Your task to perform on an android device: turn off translation in the chrome app Image 0: 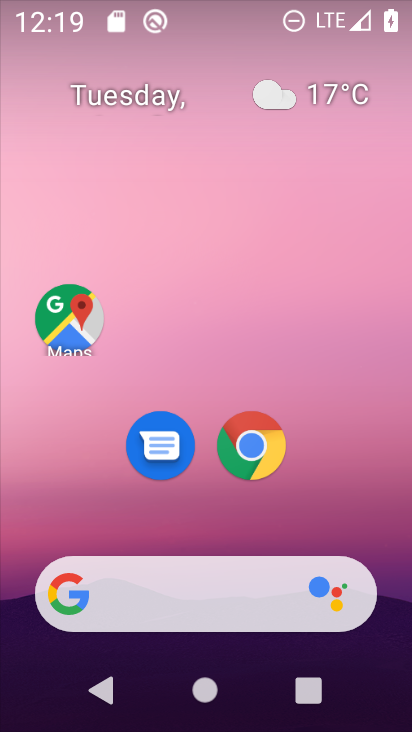
Step 0: click (246, 442)
Your task to perform on an android device: turn off translation in the chrome app Image 1: 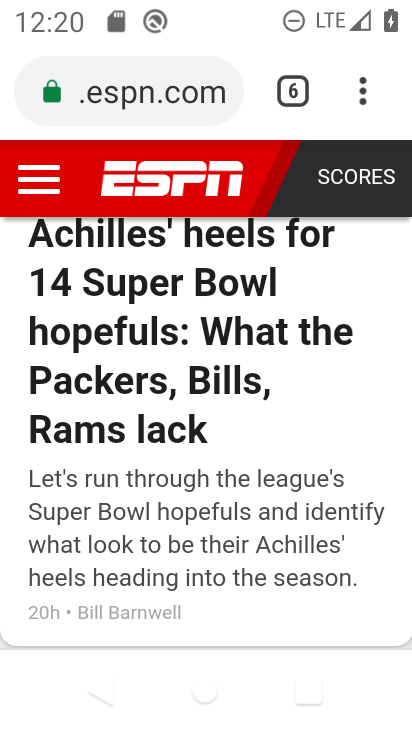
Step 1: click (346, 96)
Your task to perform on an android device: turn off translation in the chrome app Image 2: 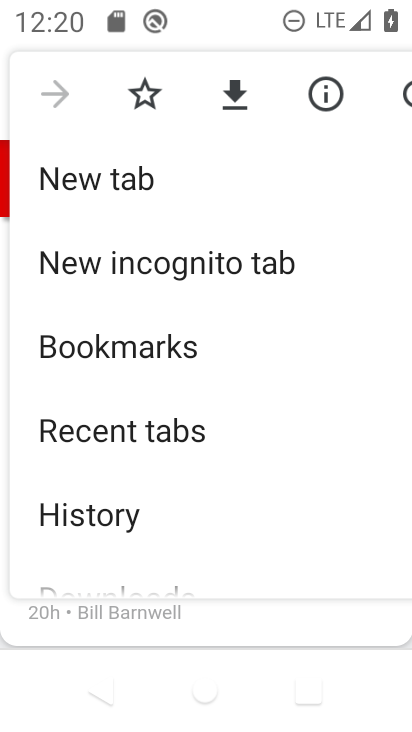
Step 2: drag from (230, 522) to (255, 177)
Your task to perform on an android device: turn off translation in the chrome app Image 3: 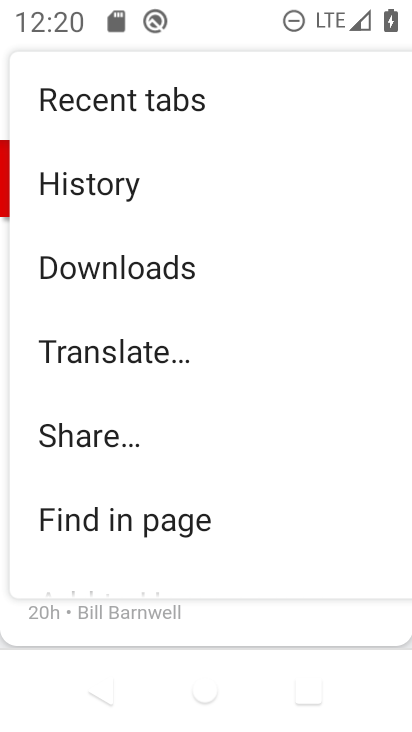
Step 3: drag from (234, 558) to (196, 187)
Your task to perform on an android device: turn off translation in the chrome app Image 4: 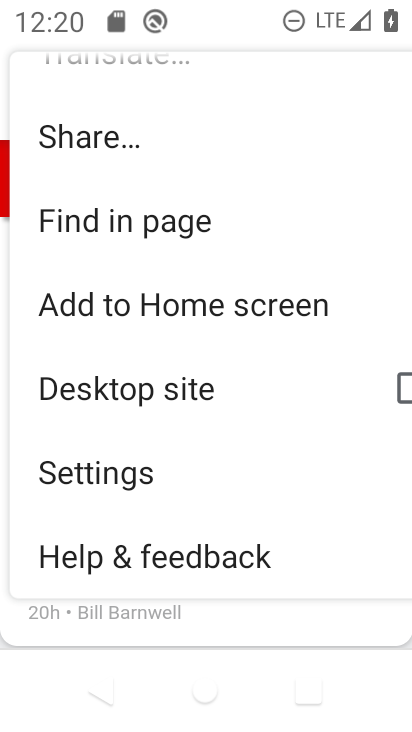
Step 4: click (116, 480)
Your task to perform on an android device: turn off translation in the chrome app Image 5: 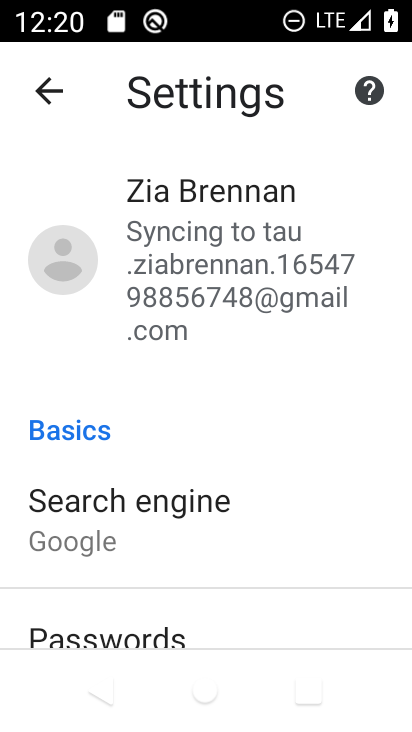
Step 5: drag from (284, 607) to (279, 266)
Your task to perform on an android device: turn off translation in the chrome app Image 6: 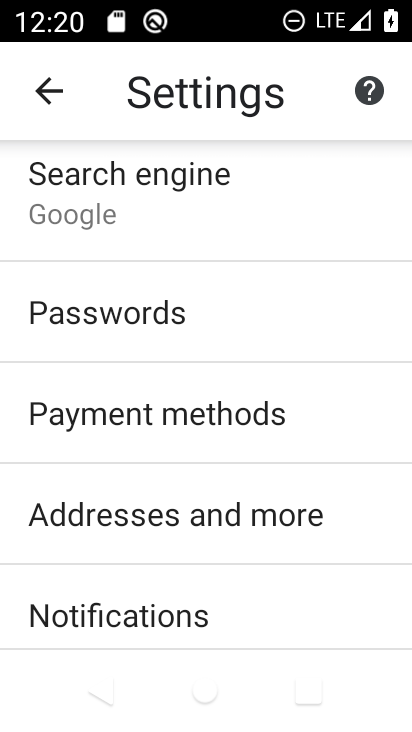
Step 6: drag from (327, 612) to (311, 212)
Your task to perform on an android device: turn off translation in the chrome app Image 7: 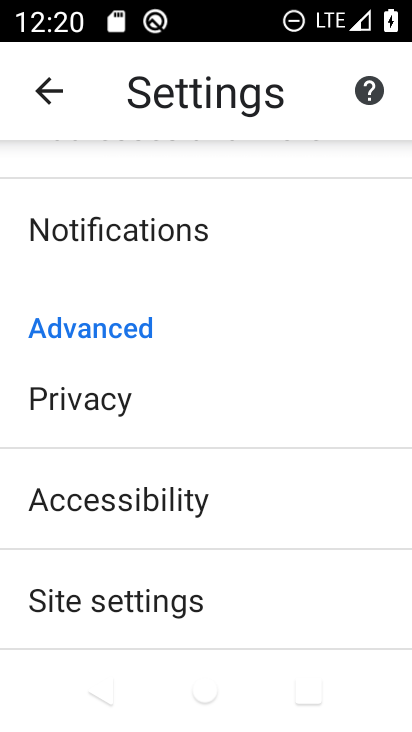
Step 7: drag from (263, 606) to (260, 245)
Your task to perform on an android device: turn off translation in the chrome app Image 8: 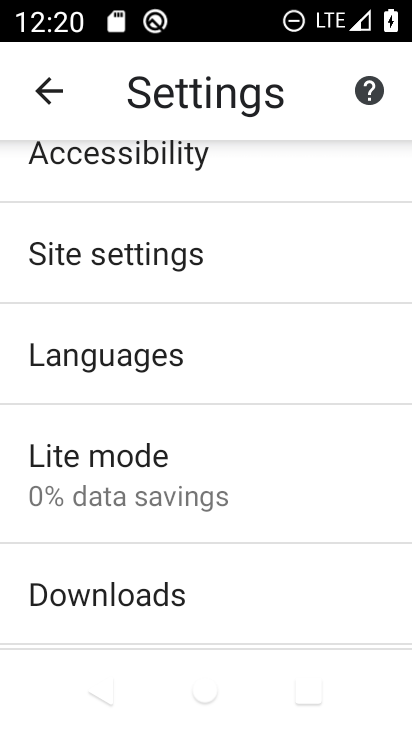
Step 8: click (105, 363)
Your task to perform on an android device: turn off translation in the chrome app Image 9: 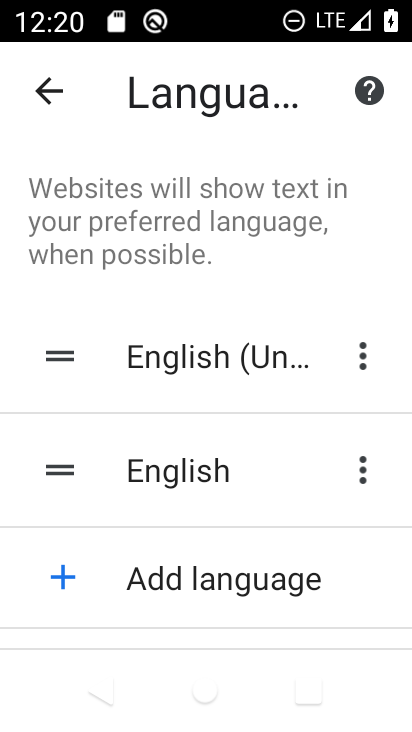
Step 9: drag from (256, 570) to (244, 157)
Your task to perform on an android device: turn off translation in the chrome app Image 10: 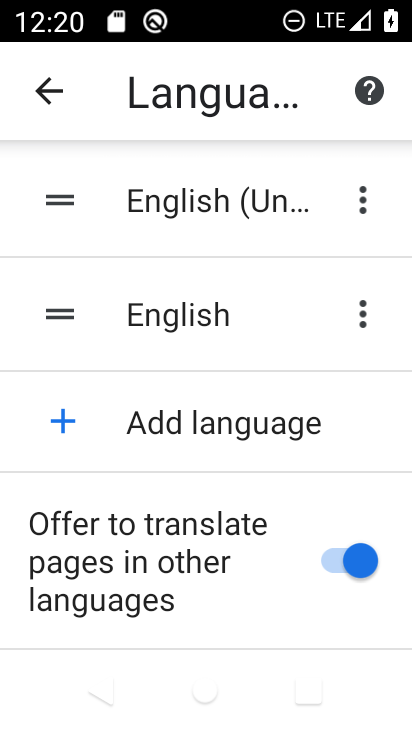
Step 10: click (328, 553)
Your task to perform on an android device: turn off translation in the chrome app Image 11: 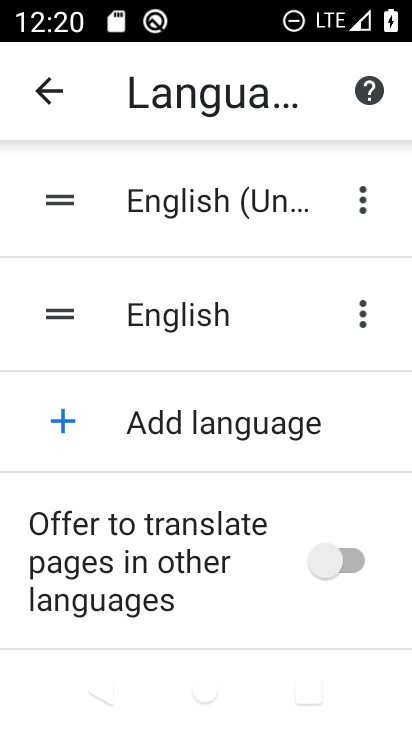
Step 11: task complete